Your task to perform on an android device: toggle improve location accuracy Image 0: 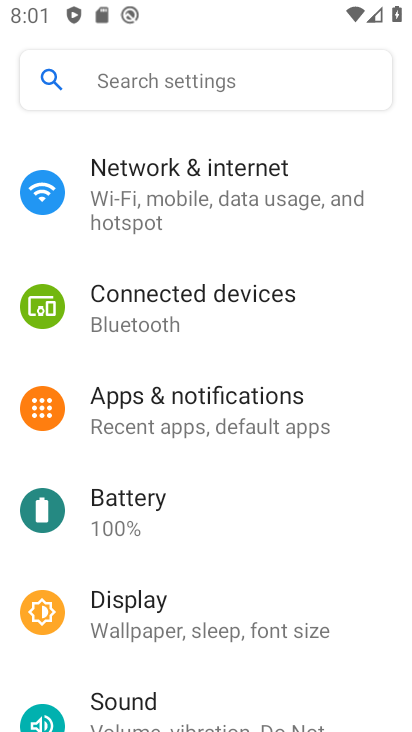
Step 0: press home button
Your task to perform on an android device: toggle improve location accuracy Image 1: 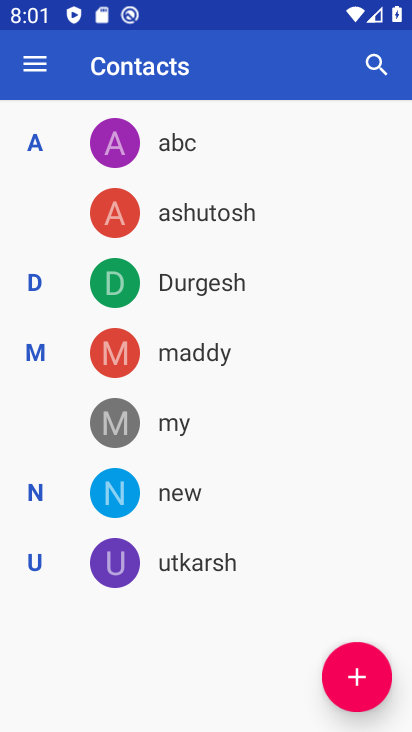
Step 1: press home button
Your task to perform on an android device: toggle improve location accuracy Image 2: 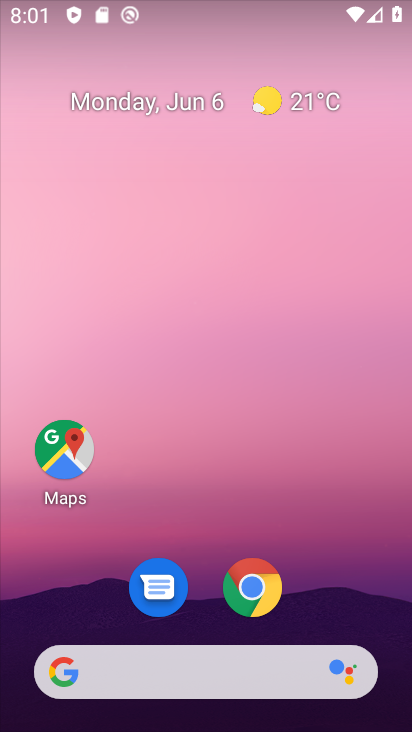
Step 2: press home button
Your task to perform on an android device: toggle improve location accuracy Image 3: 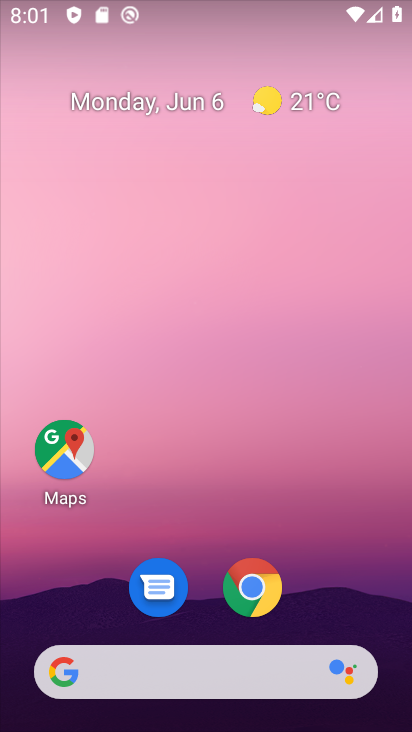
Step 3: drag from (350, 546) to (359, 109)
Your task to perform on an android device: toggle improve location accuracy Image 4: 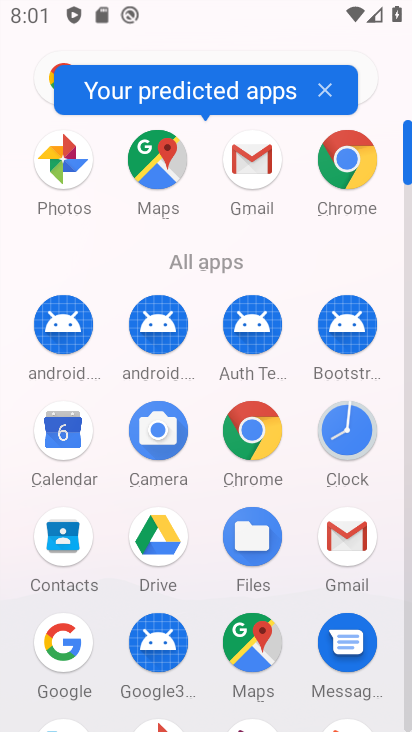
Step 4: drag from (320, 363) to (345, 138)
Your task to perform on an android device: toggle improve location accuracy Image 5: 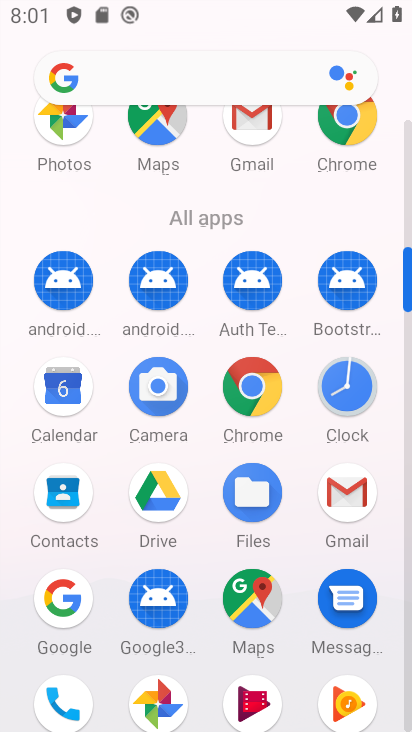
Step 5: drag from (307, 634) to (310, 231)
Your task to perform on an android device: toggle improve location accuracy Image 6: 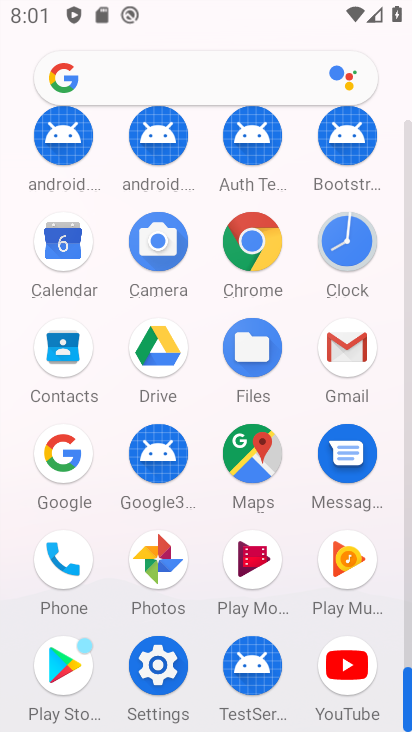
Step 6: click (145, 674)
Your task to perform on an android device: toggle improve location accuracy Image 7: 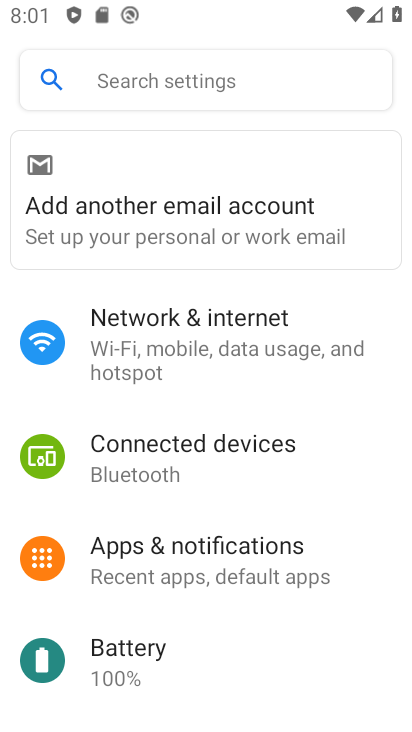
Step 7: drag from (270, 648) to (277, 157)
Your task to perform on an android device: toggle improve location accuracy Image 8: 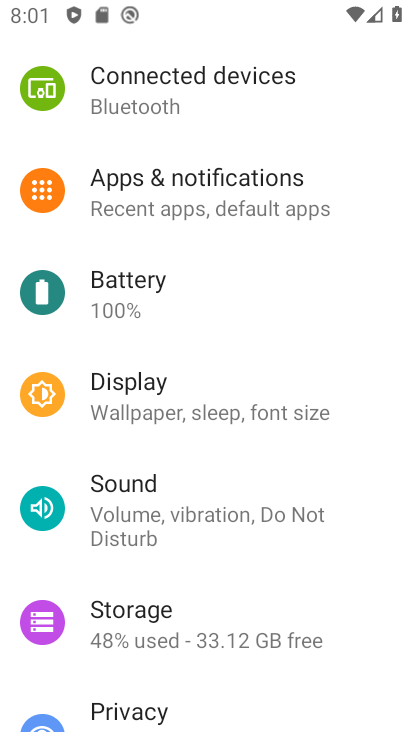
Step 8: drag from (235, 557) to (308, 114)
Your task to perform on an android device: toggle improve location accuracy Image 9: 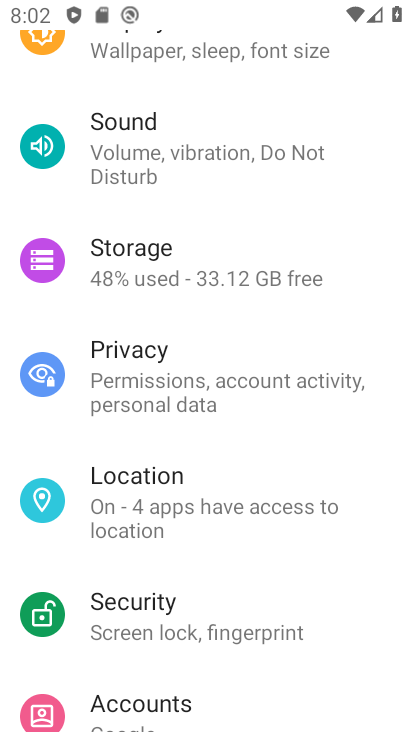
Step 9: drag from (236, 527) to (281, 187)
Your task to perform on an android device: toggle improve location accuracy Image 10: 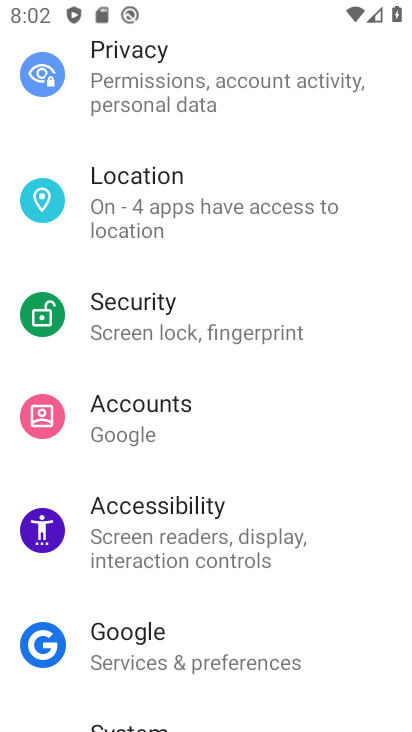
Step 10: click (153, 216)
Your task to perform on an android device: toggle improve location accuracy Image 11: 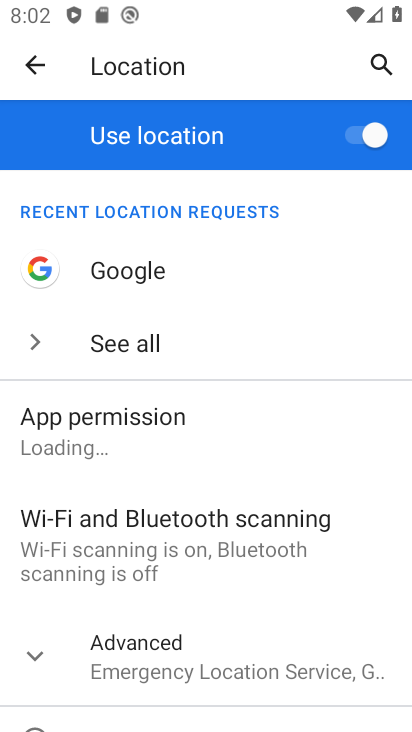
Step 11: click (160, 676)
Your task to perform on an android device: toggle improve location accuracy Image 12: 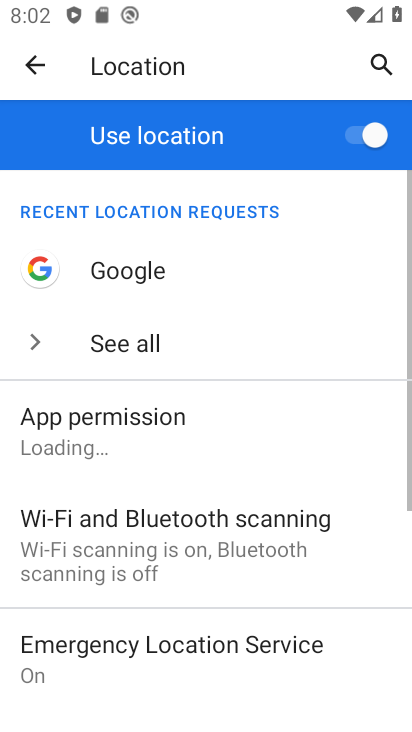
Step 12: drag from (278, 653) to (271, 116)
Your task to perform on an android device: toggle improve location accuracy Image 13: 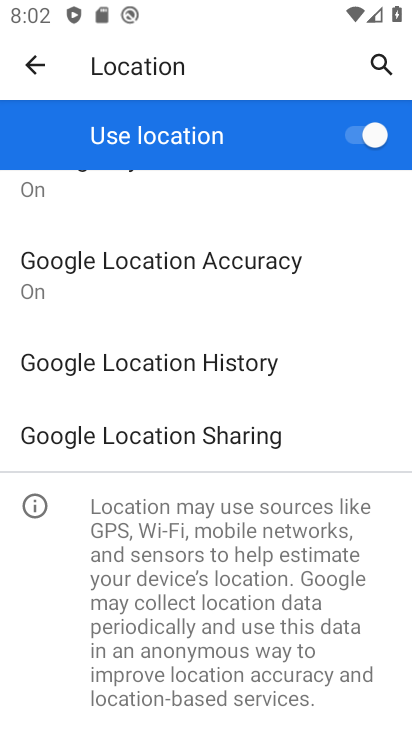
Step 13: click (226, 257)
Your task to perform on an android device: toggle improve location accuracy Image 14: 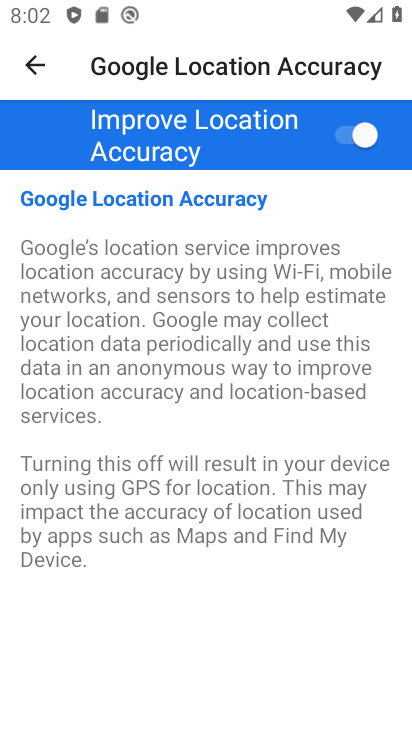
Step 14: click (358, 127)
Your task to perform on an android device: toggle improve location accuracy Image 15: 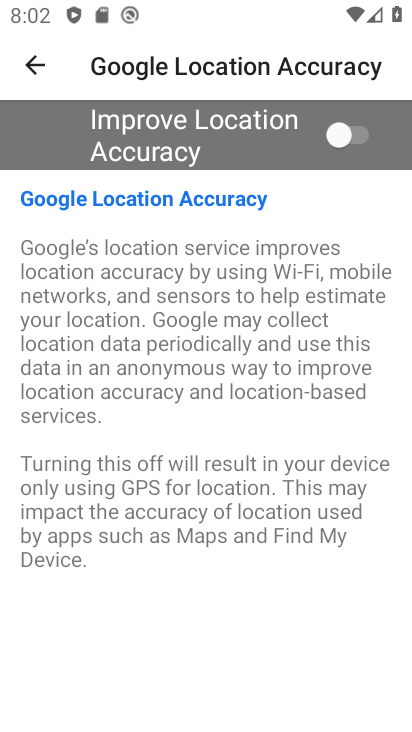
Step 15: task complete